Your task to perform on an android device: choose inbox layout in the gmail app Image 0: 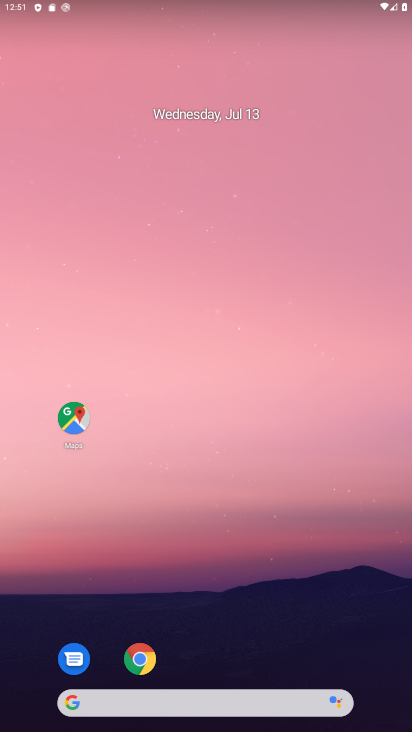
Step 0: drag from (31, 695) to (192, 53)
Your task to perform on an android device: choose inbox layout in the gmail app Image 1: 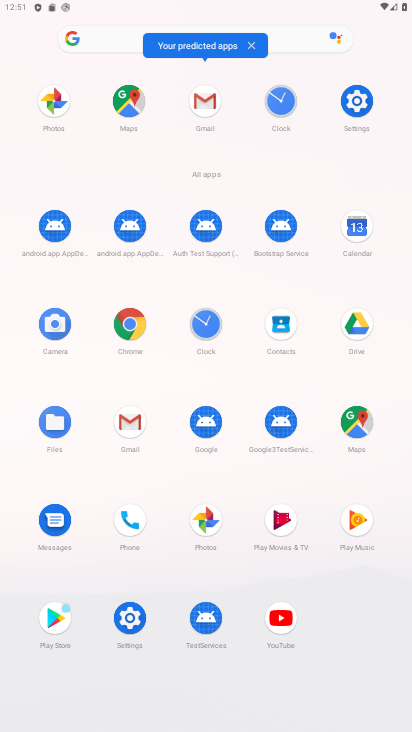
Step 1: click (149, 434)
Your task to perform on an android device: choose inbox layout in the gmail app Image 2: 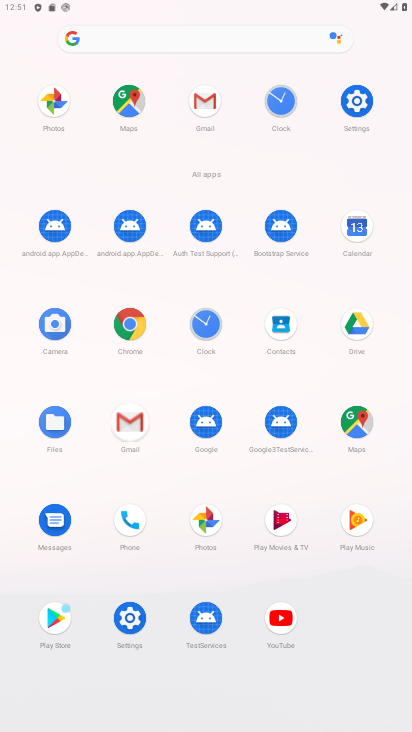
Step 2: click (140, 418)
Your task to perform on an android device: choose inbox layout in the gmail app Image 3: 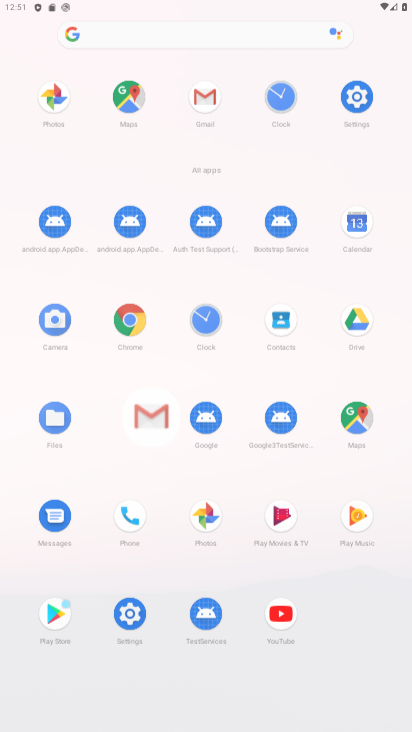
Step 3: click (120, 437)
Your task to perform on an android device: choose inbox layout in the gmail app Image 4: 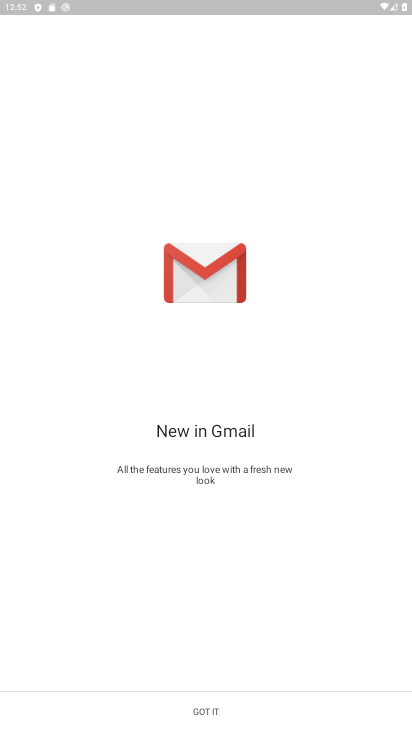
Step 4: click (200, 710)
Your task to perform on an android device: choose inbox layout in the gmail app Image 5: 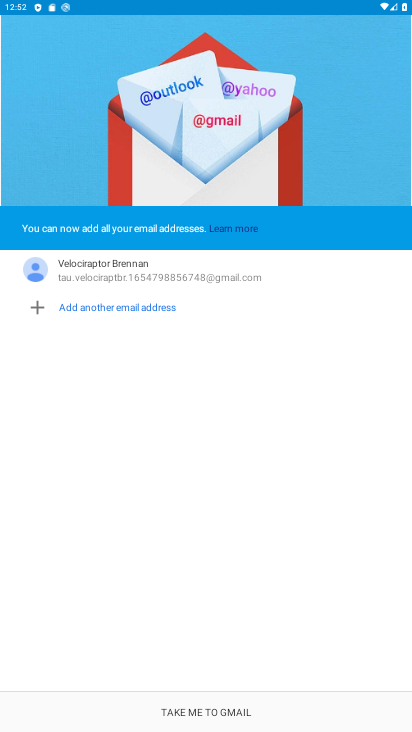
Step 5: click (205, 710)
Your task to perform on an android device: choose inbox layout in the gmail app Image 6: 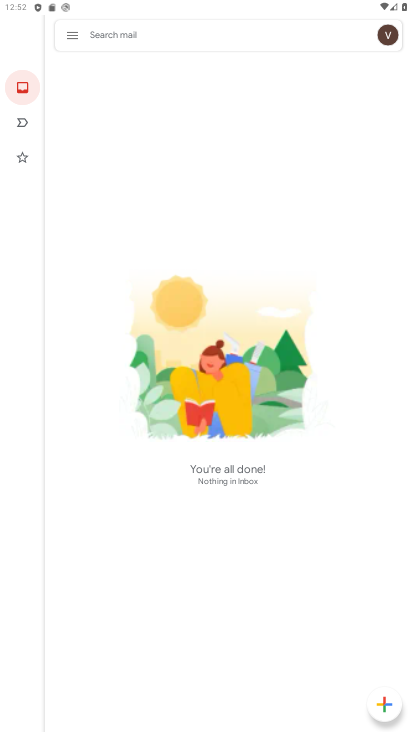
Step 6: click (66, 36)
Your task to perform on an android device: choose inbox layout in the gmail app Image 7: 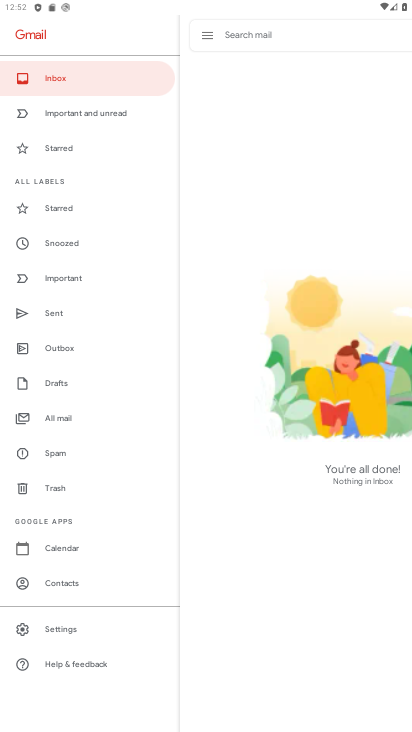
Step 7: click (89, 78)
Your task to perform on an android device: choose inbox layout in the gmail app Image 8: 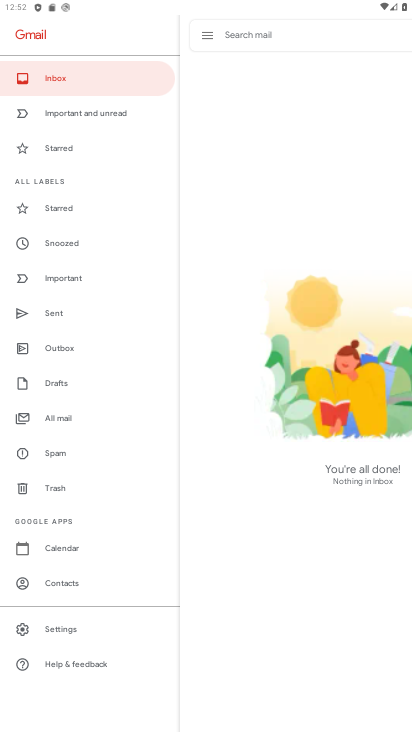
Step 8: click (119, 72)
Your task to perform on an android device: choose inbox layout in the gmail app Image 9: 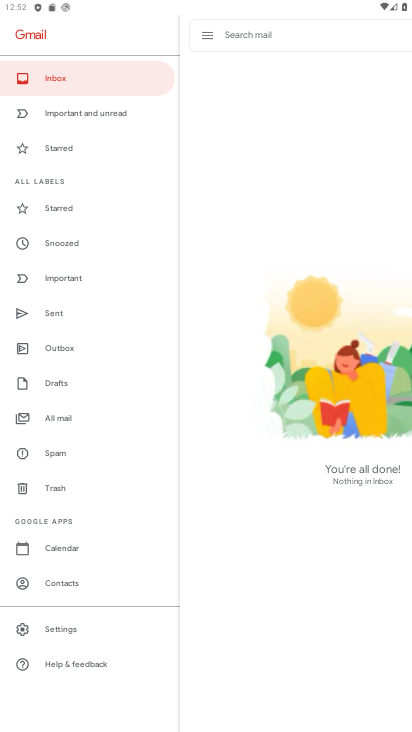
Step 9: task complete